Your task to perform on an android device: toggle pop-ups in chrome Image 0: 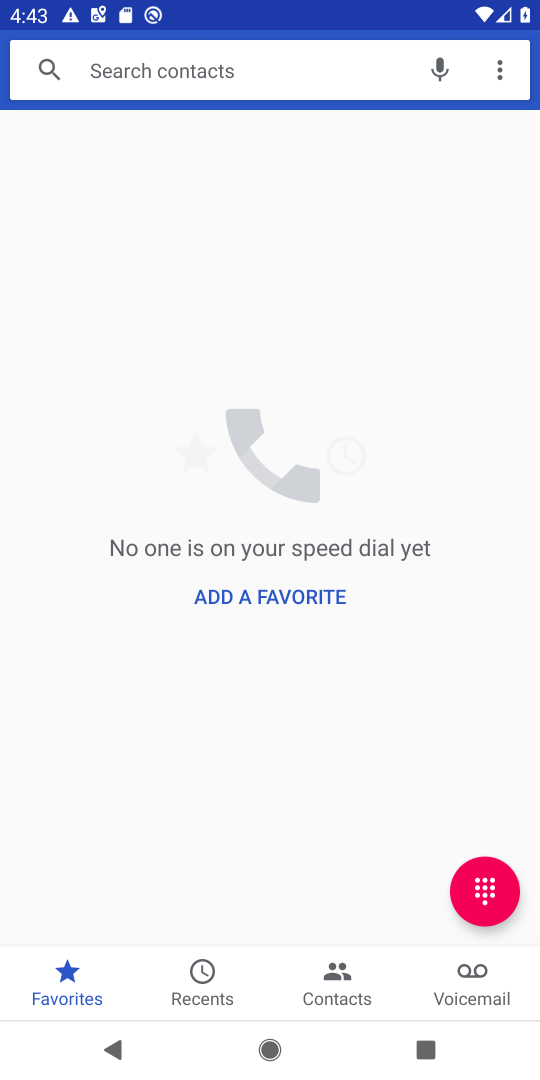
Step 0: press back button
Your task to perform on an android device: toggle pop-ups in chrome Image 1: 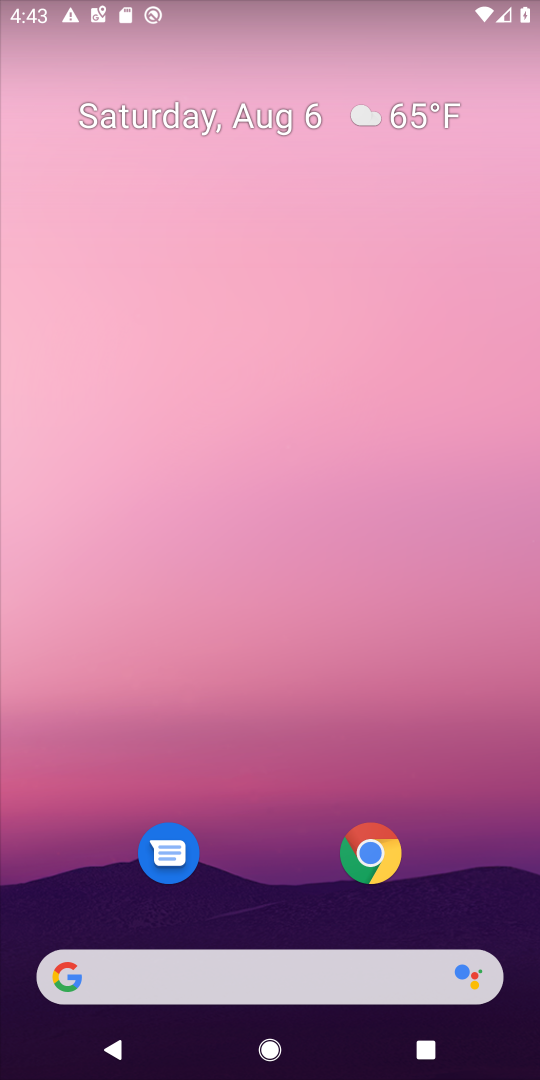
Step 1: click (361, 851)
Your task to perform on an android device: toggle pop-ups in chrome Image 2: 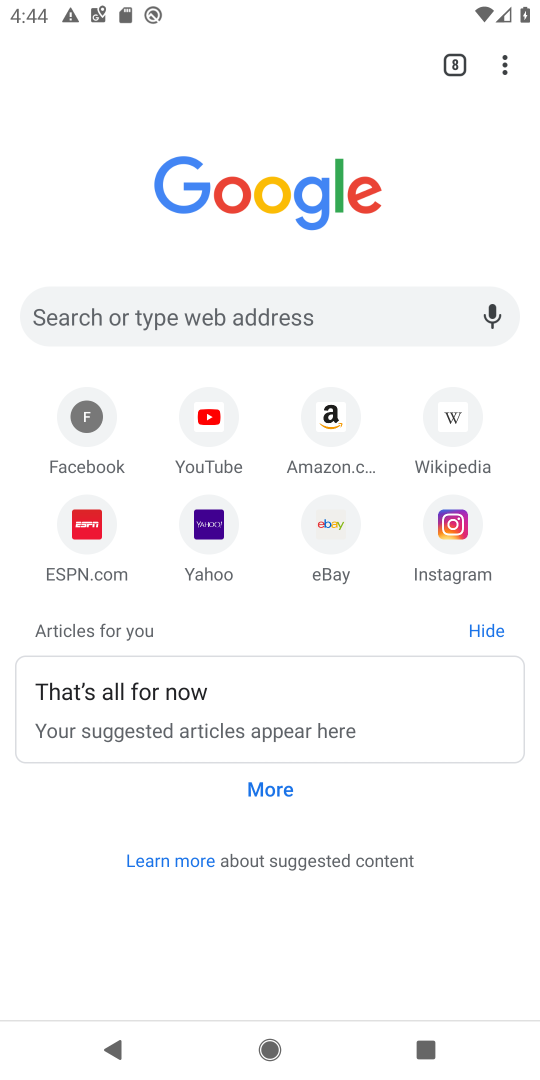
Step 2: drag from (508, 74) to (314, 548)
Your task to perform on an android device: toggle pop-ups in chrome Image 3: 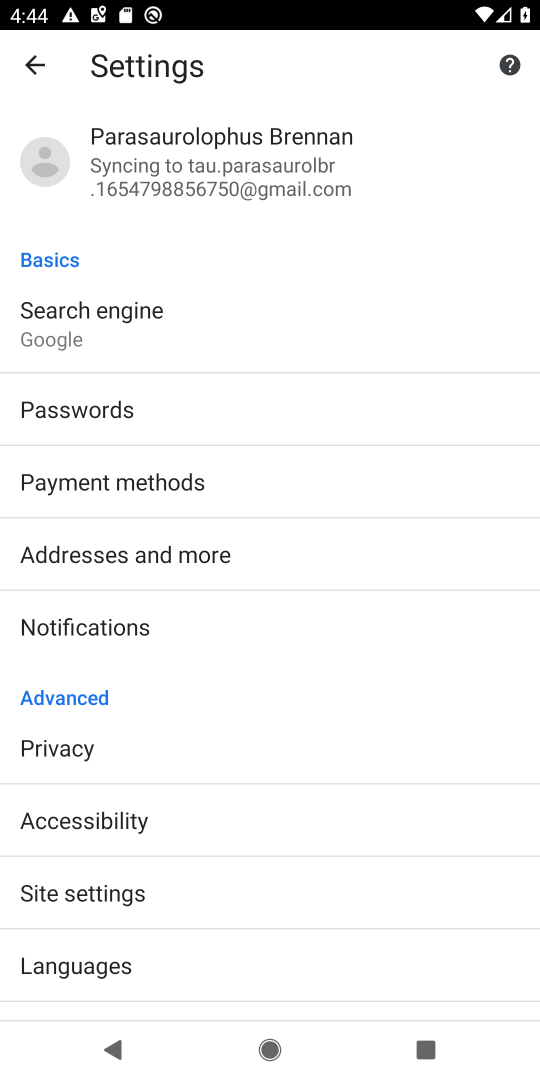
Step 3: click (74, 907)
Your task to perform on an android device: toggle pop-ups in chrome Image 4: 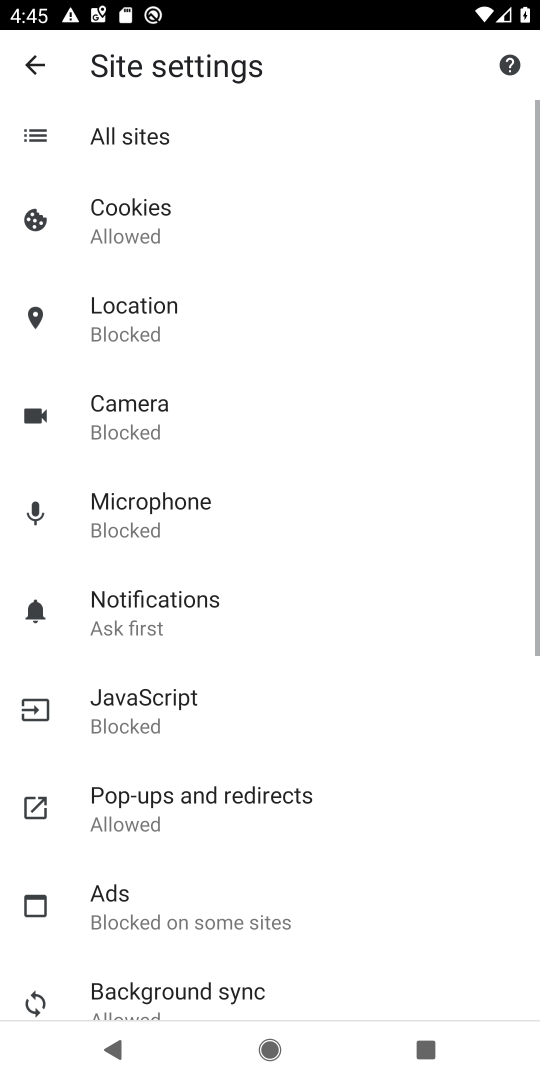
Step 4: drag from (115, 898) to (256, 396)
Your task to perform on an android device: toggle pop-ups in chrome Image 5: 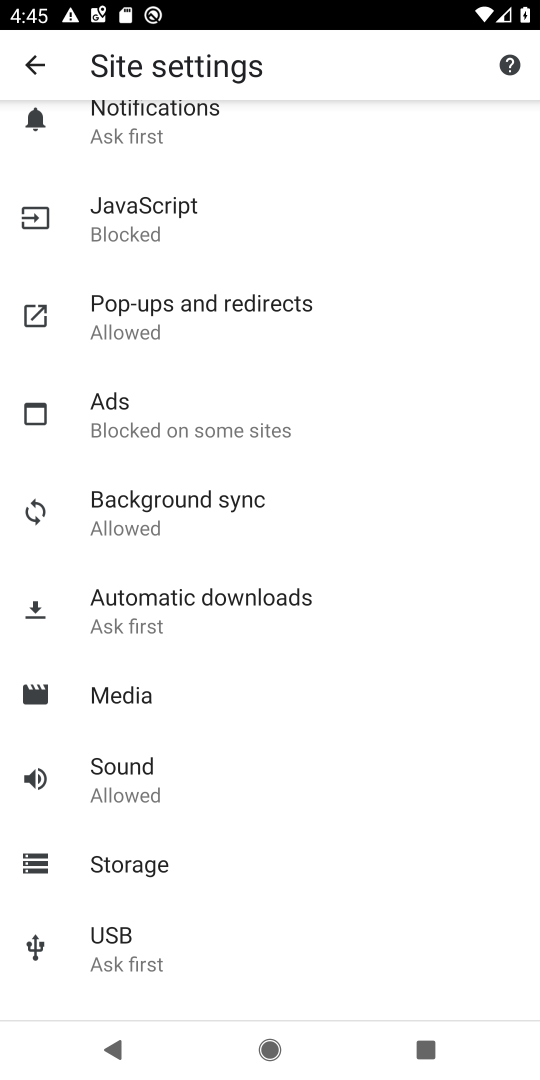
Step 5: click (210, 300)
Your task to perform on an android device: toggle pop-ups in chrome Image 6: 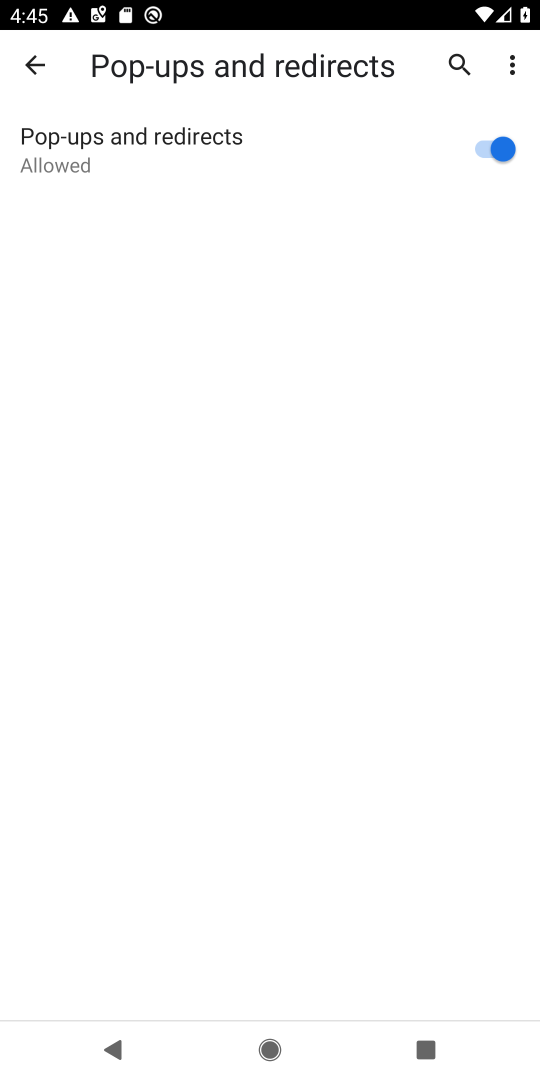
Step 6: click (504, 145)
Your task to perform on an android device: toggle pop-ups in chrome Image 7: 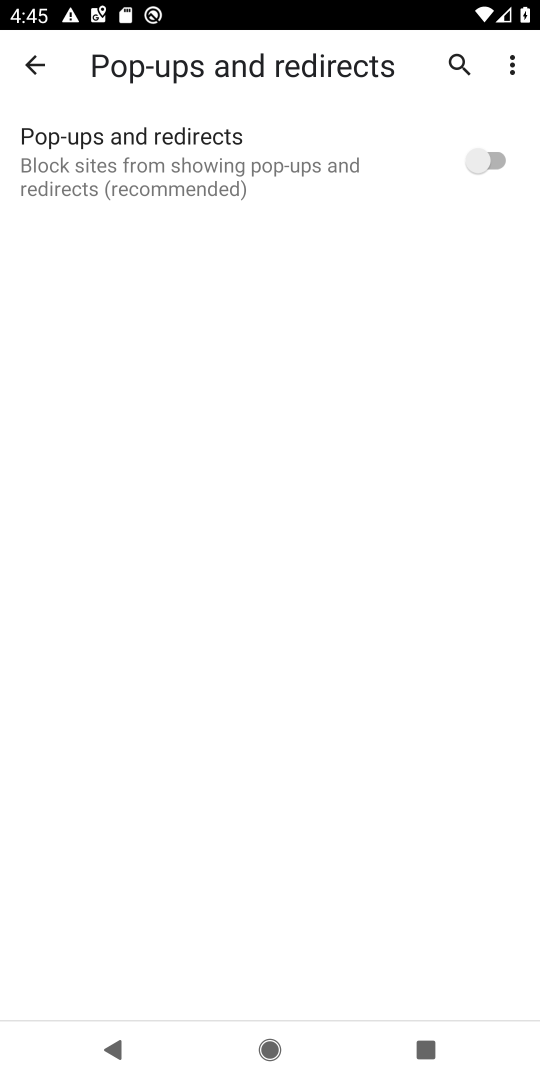
Step 7: task complete